Your task to perform on an android device: Open privacy settings Image 0: 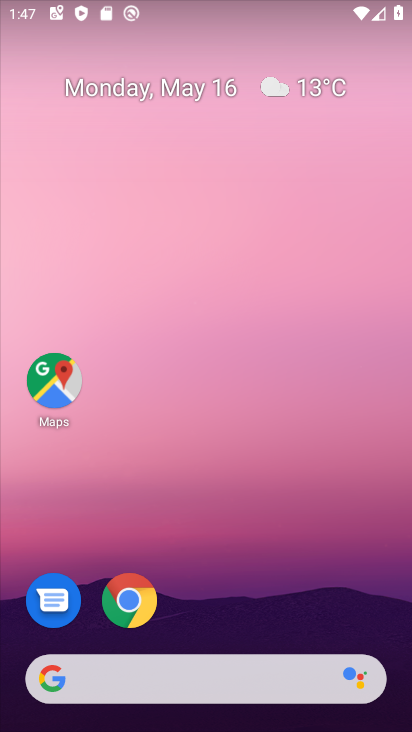
Step 0: drag from (232, 606) to (201, 93)
Your task to perform on an android device: Open privacy settings Image 1: 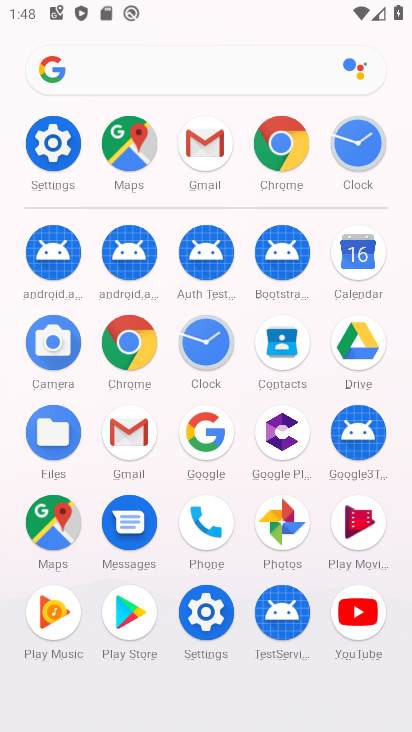
Step 1: click (210, 612)
Your task to perform on an android device: Open privacy settings Image 2: 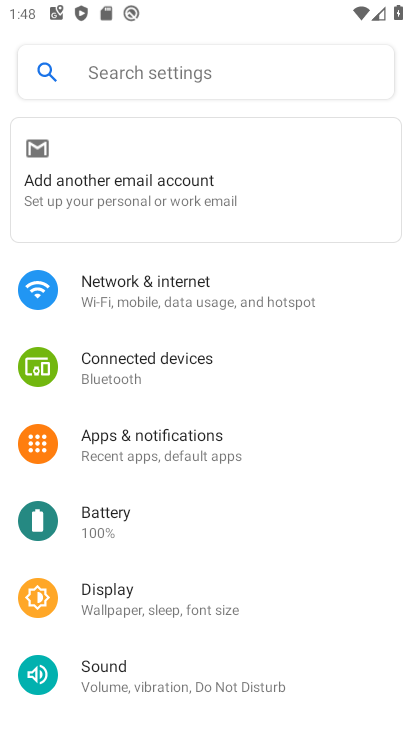
Step 2: drag from (162, 657) to (181, 362)
Your task to perform on an android device: Open privacy settings Image 3: 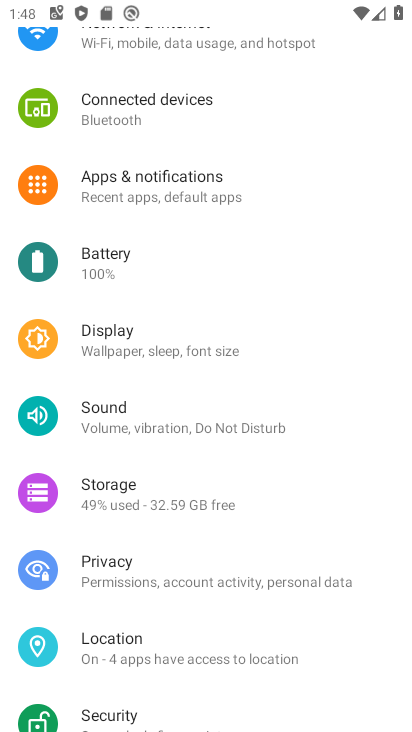
Step 3: click (149, 589)
Your task to perform on an android device: Open privacy settings Image 4: 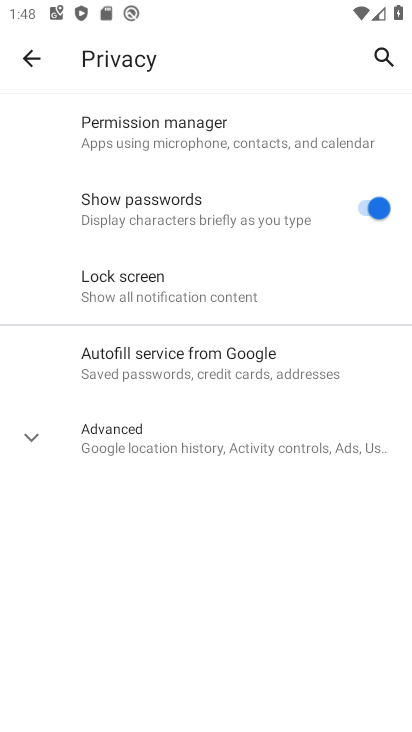
Step 4: task complete